Your task to perform on an android device: open sync settings in chrome Image 0: 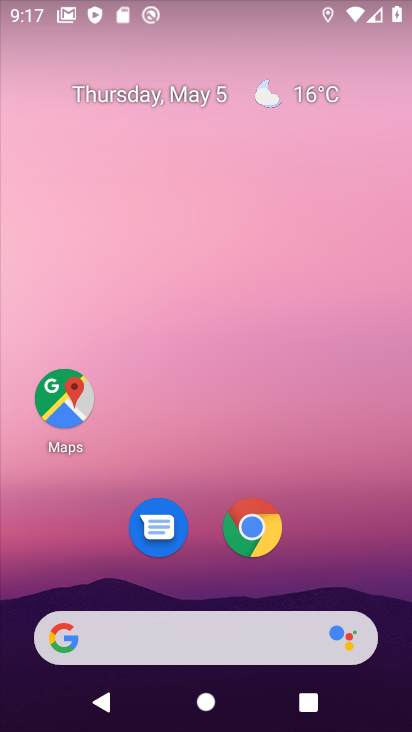
Step 0: click (263, 526)
Your task to perform on an android device: open sync settings in chrome Image 1: 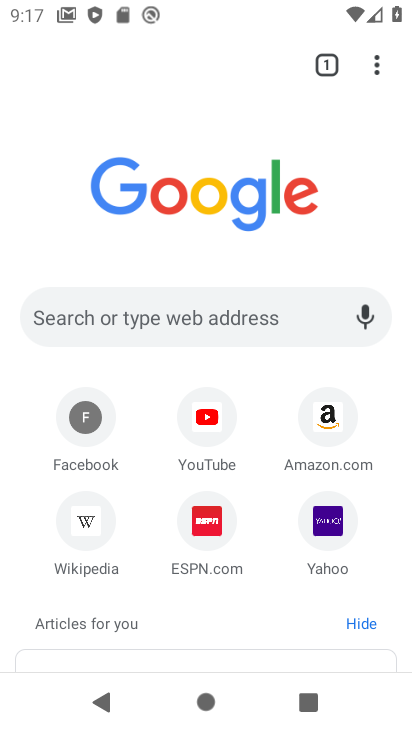
Step 1: drag from (388, 74) to (262, 549)
Your task to perform on an android device: open sync settings in chrome Image 2: 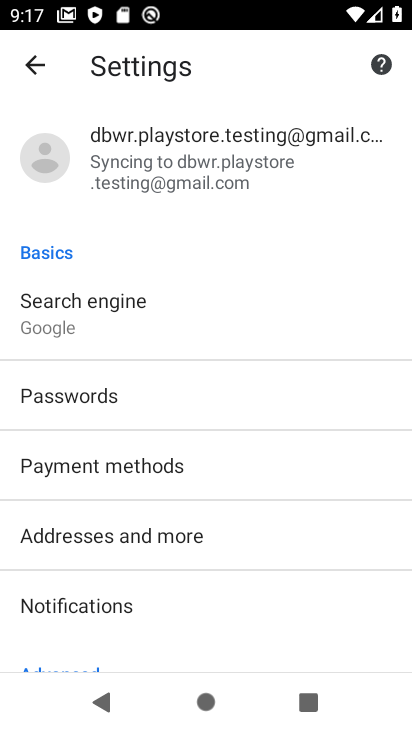
Step 2: click (239, 191)
Your task to perform on an android device: open sync settings in chrome Image 3: 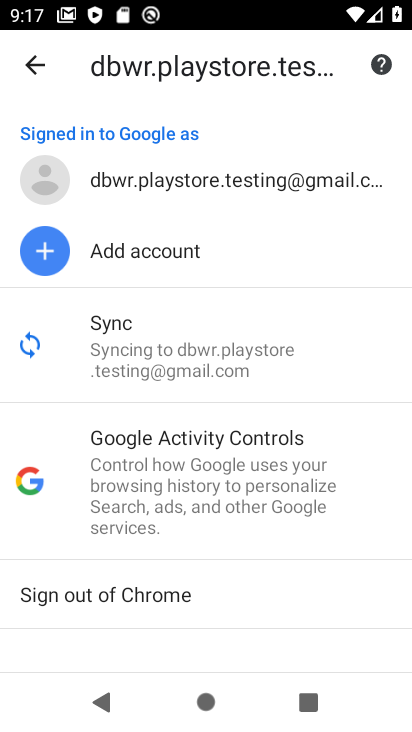
Step 3: click (162, 324)
Your task to perform on an android device: open sync settings in chrome Image 4: 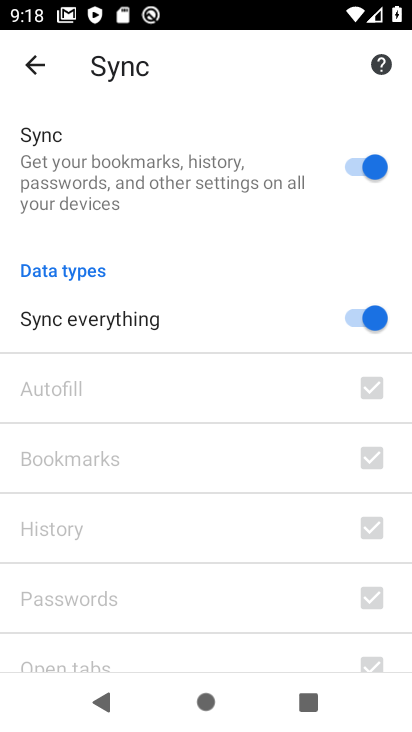
Step 4: task complete